Your task to perform on an android device: Open Reddit.com Image 0: 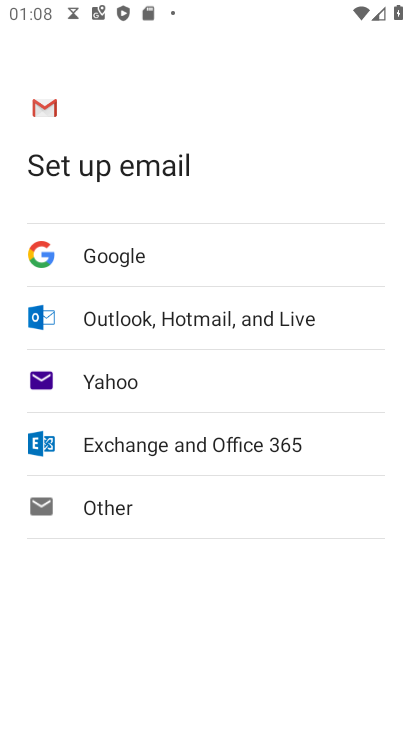
Step 0: press home button
Your task to perform on an android device: Open Reddit.com Image 1: 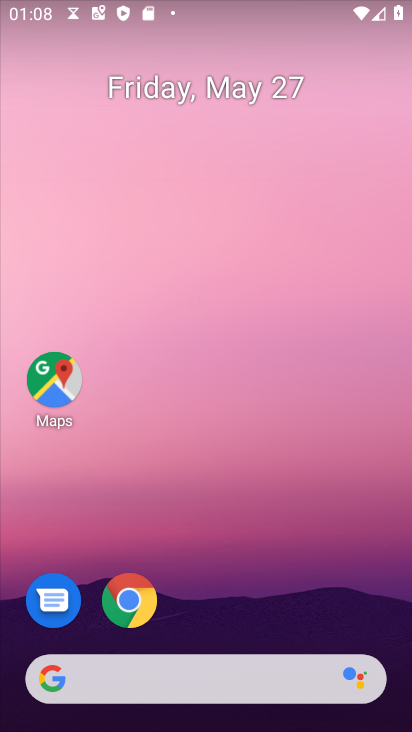
Step 1: click (231, 671)
Your task to perform on an android device: Open Reddit.com Image 2: 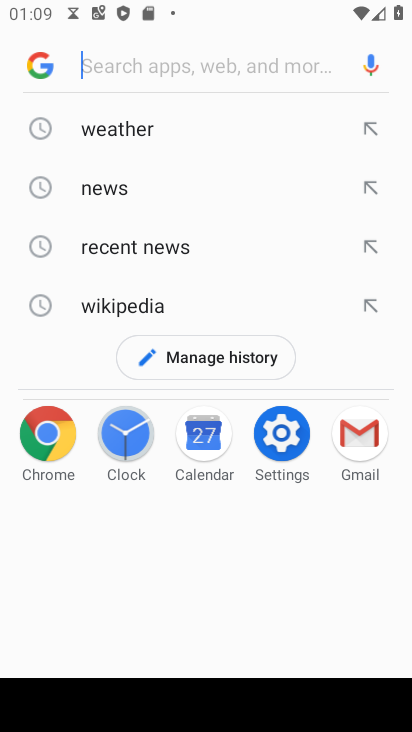
Step 2: type "Reddit.com"
Your task to perform on an android device: Open Reddit.com Image 3: 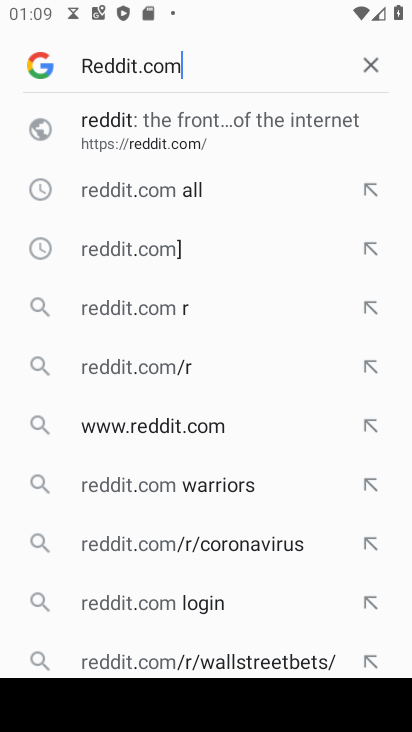
Step 3: click (210, 57)
Your task to perform on an android device: Open Reddit.com Image 4: 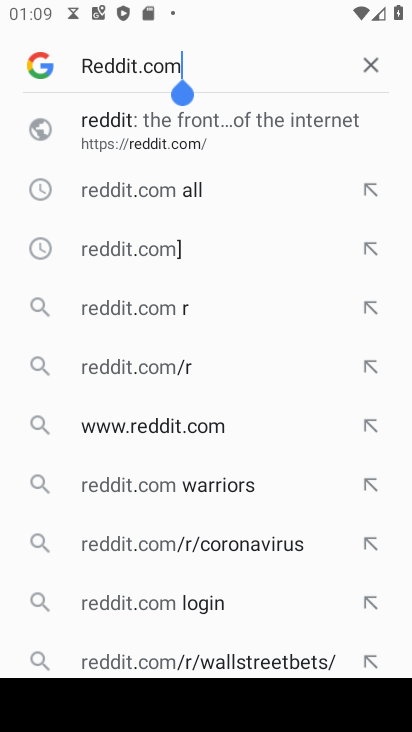
Step 4: click (212, 58)
Your task to perform on an android device: Open Reddit.com Image 5: 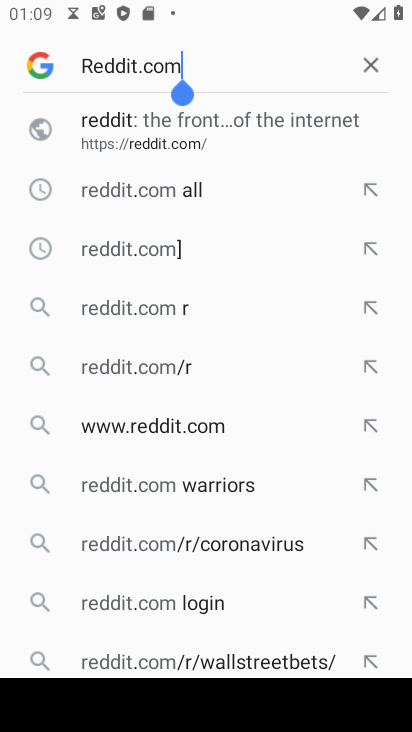
Step 5: click (372, 60)
Your task to perform on an android device: Open Reddit.com Image 6: 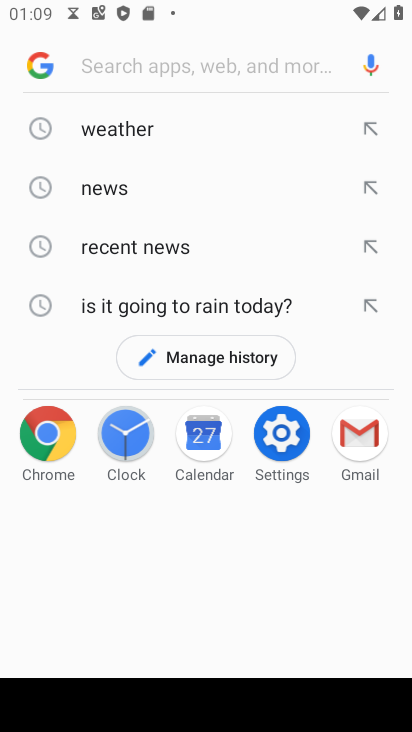
Step 6: click (48, 441)
Your task to perform on an android device: Open Reddit.com Image 7: 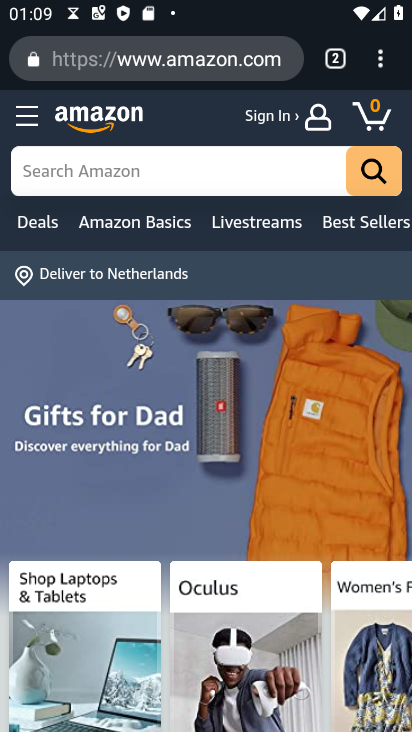
Step 7: click (333, 52)
Your task to perform on an android device: Open Reddit.com Image 8: 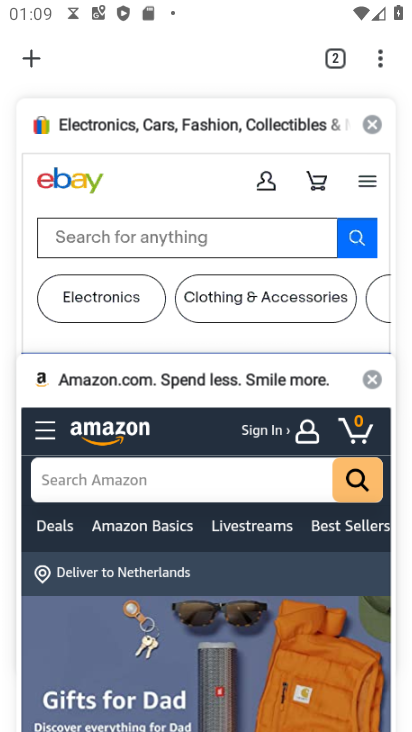
Step 8: click (19, 37)
Your task to perform on an android device: Open Reddit.com Image 9: 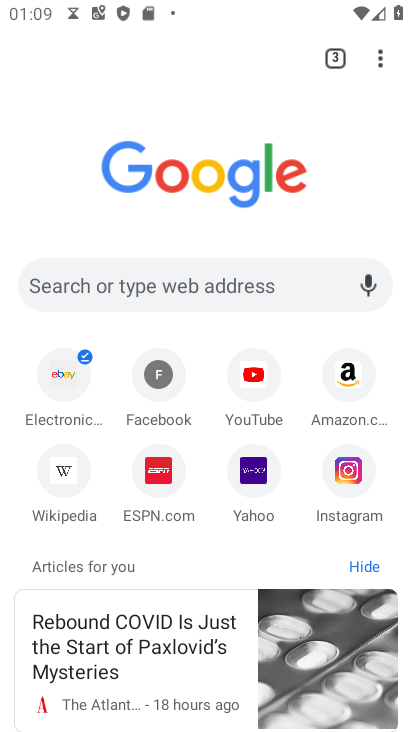
Step 9: click (147, 285)
Your task to perform on an android device: Open Reddit.com Image 10: 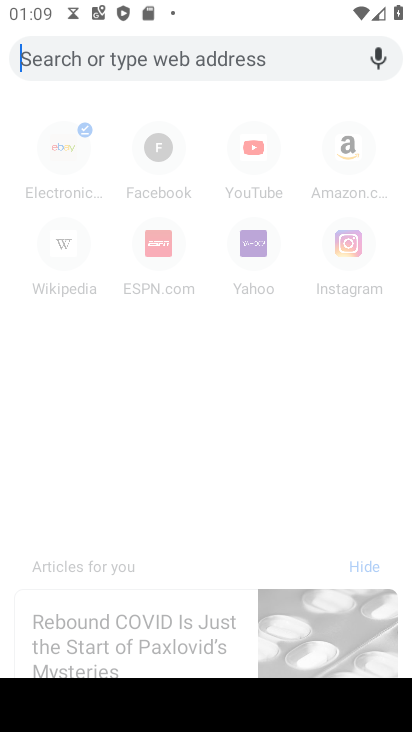
Step 10: type "Reddit.com"
Your task to perform on an android device: Open Reddit.com Image 11: 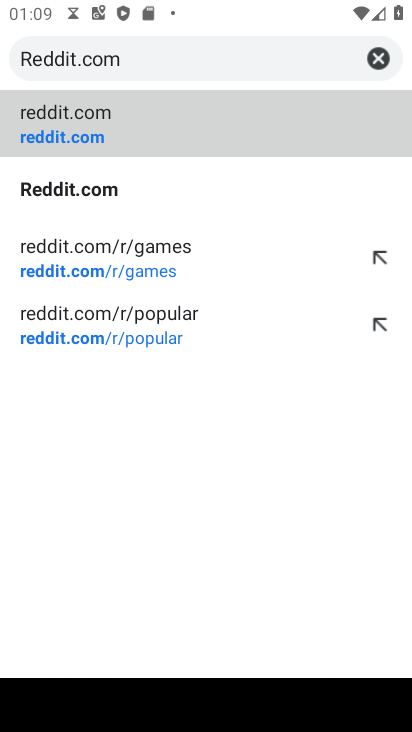
Step 11: click (72, 107)
Your task to perform on an android device: Open Reddit.com Image 12: 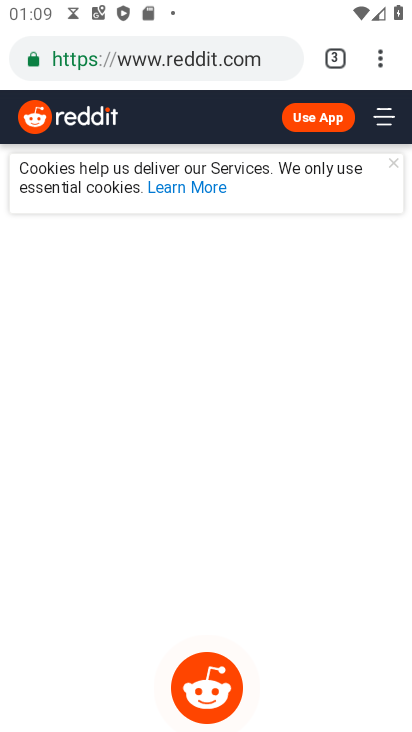
Step 12: task complete